Your task to perform on an android device: turn notification dots on Image 0: 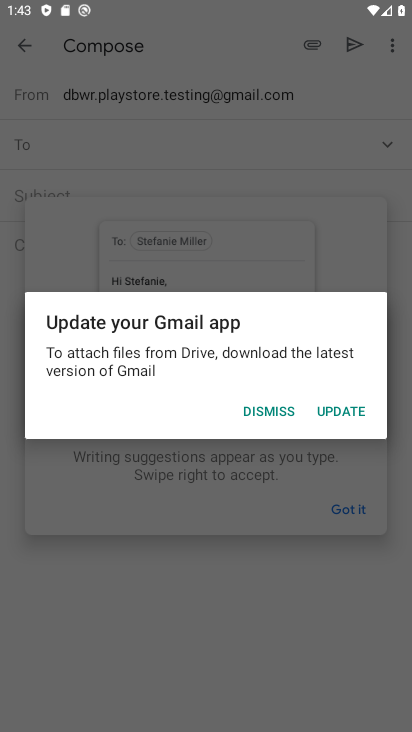
Step 0: press home button
Your task to perform on an android device: turn notification dots on Image 1: 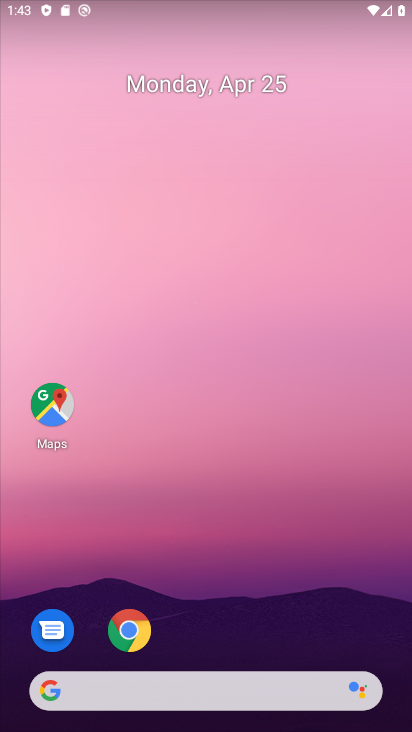
Step 1: drag from (225, 626) to (183, 178)
Your task to perform on an android device: turn notification dots on Image 2: 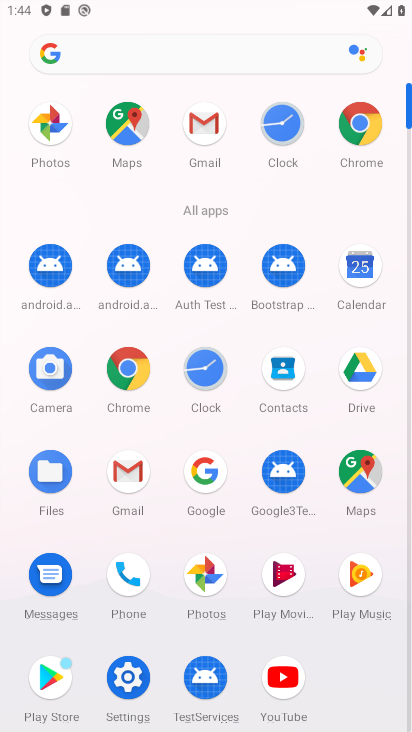
Step 2: click (135, 682)
Your task to perform on an android device: turn notification dots on Image 3: 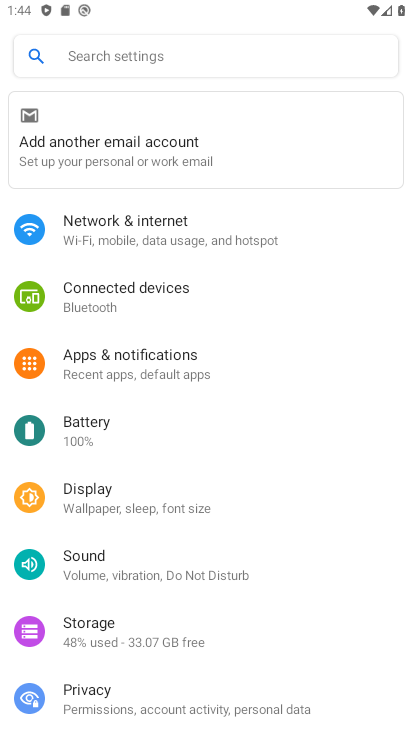
Step 3: click (136, 369)
Your task to perform on an android device: turn notification dots on Image 4: 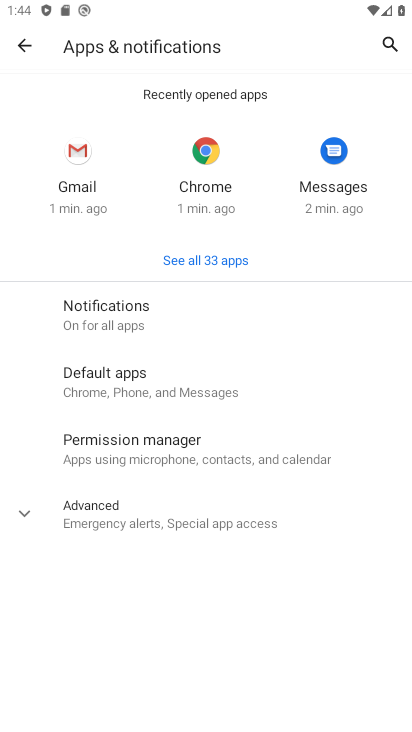
Step 4: click (102, 330)
Your task to perform on an android device: turn notification dots on Image 5: 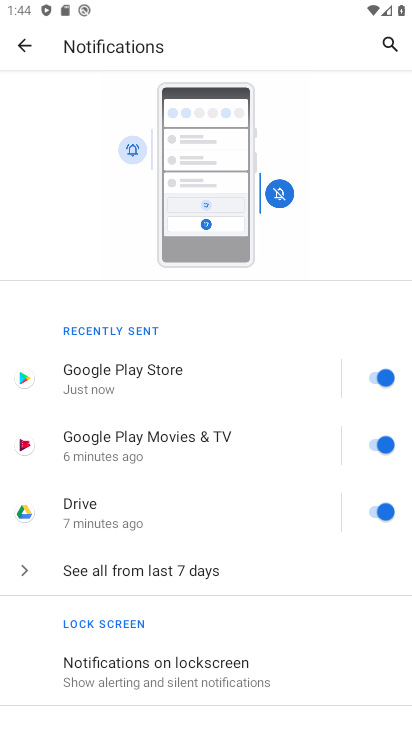
Step 5: drag from (237, 644) to (285, 254)
Your task to perform on an android device: turn notification dots on Image 6: 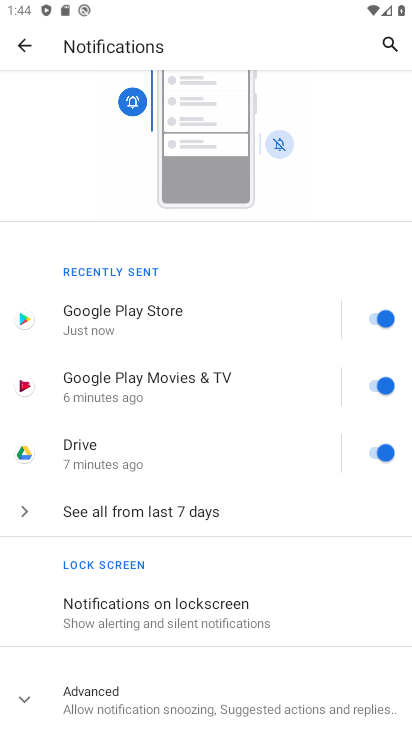
Step 6: drag from (156, 620) to (194, 262)
Your task to perform on an android device: turn notification dots on Image 7: 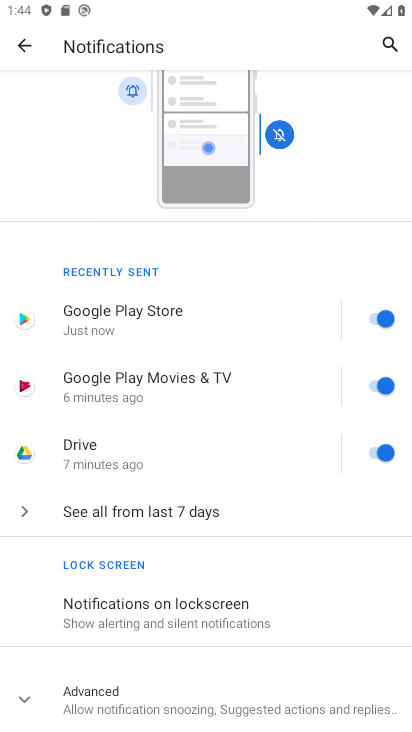
Step 7: click (116, 679)
Your task to perform on an android device: turn notification dots on Image 8: 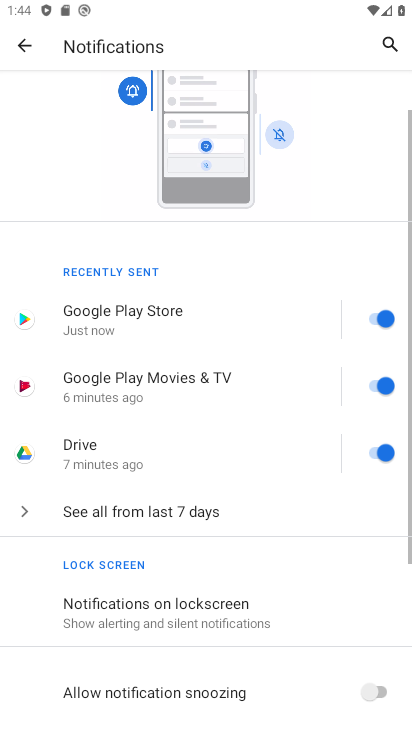
Step 8: task complete